Your task to perform on an android device: Open Chrome and go to settings Image 0: 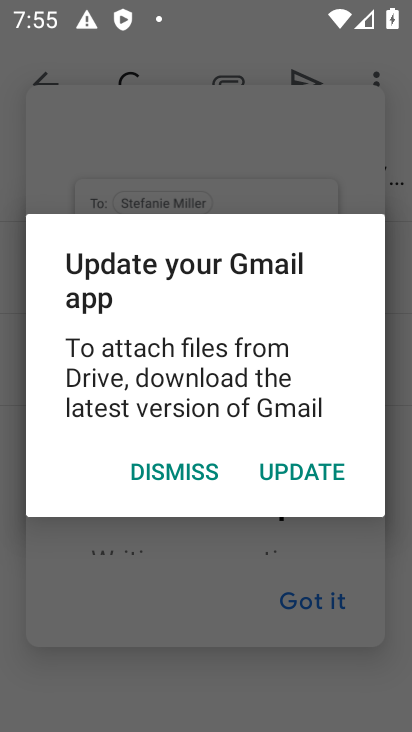
Step 0: press back button
Your task to perform on an android device: Open Chrome and go to settings Image 1: 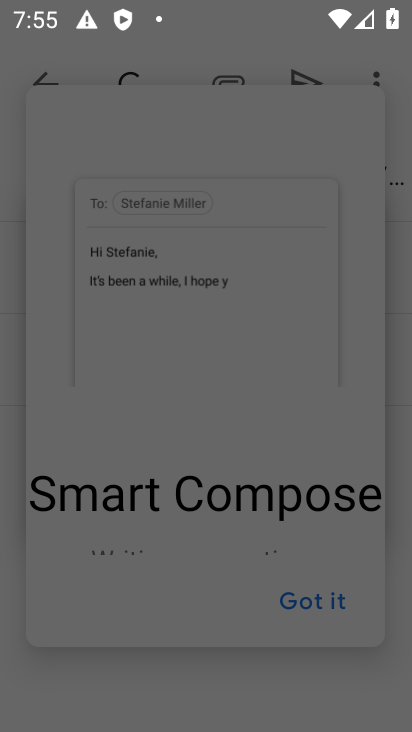
Step 1: press home button
Your task to perform on an android device: Open Chrome and go to settings Image 2: 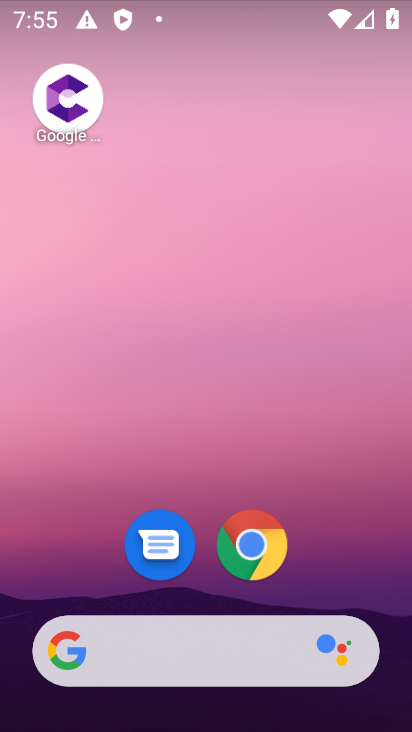
Step 2: click (263, 543)
Your task to perform on an android device: Open Chrome and go to settings Image 3: 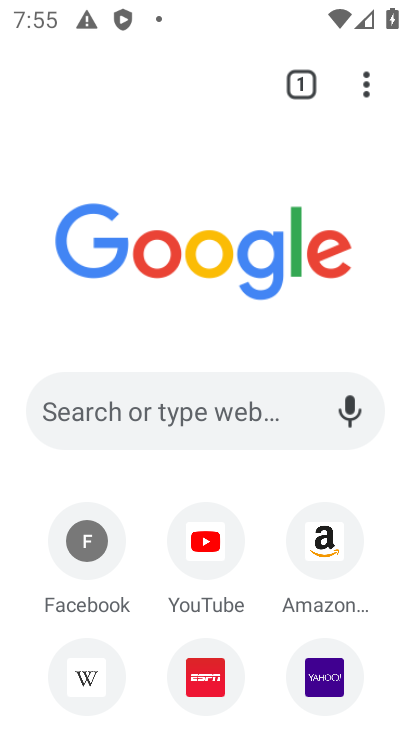
Step 3: click (364, 82)
Your task to perform on an android device: Open Chrome and go to settings Image 4: 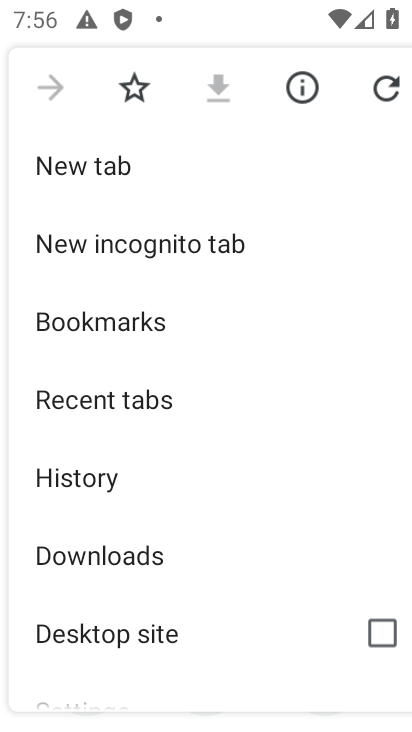
Step 4: drag from (68, 693) to (207, 215)
Your task to perform on an android device: Open Chrome and go to settings Image 5: 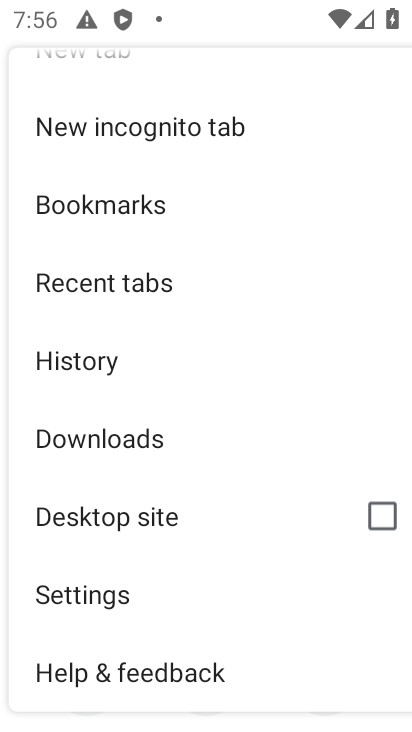
Step 5: click (134, 597)
Your task to perform on an android device: Open Chrome and go to settings Image 6: 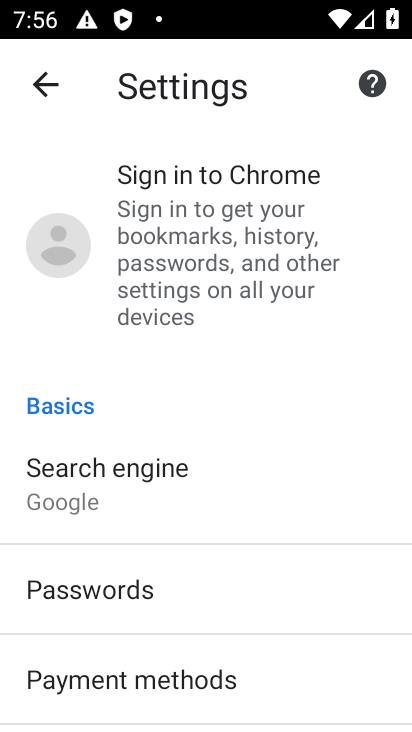
Step 6: task complete